Your task to perform on an android device: Open Chrome and go to settings Image 0: 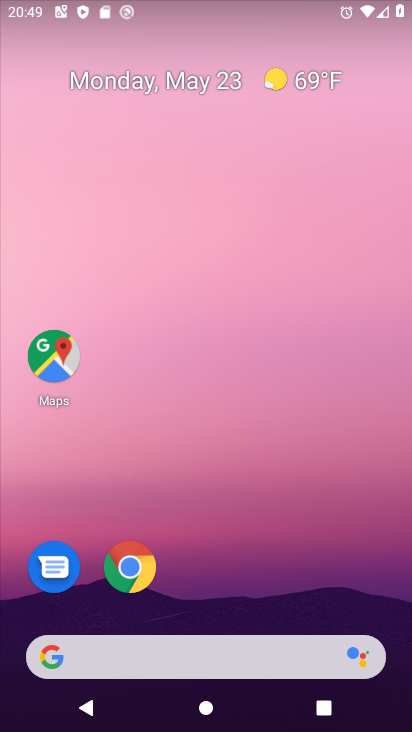
Step 0: click (134, 569)
Your task to perform on an android device: Open Chrome and go to settings Image 1: 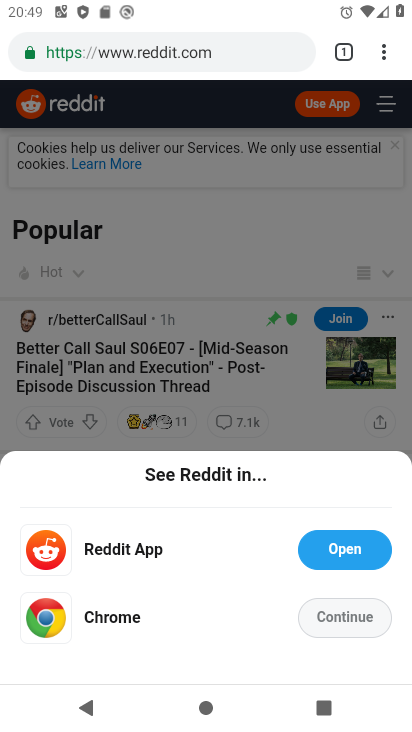
Step 1: click (382, 45)
Your task to perform on an android device: Open Chrome and go to settings Image 2: 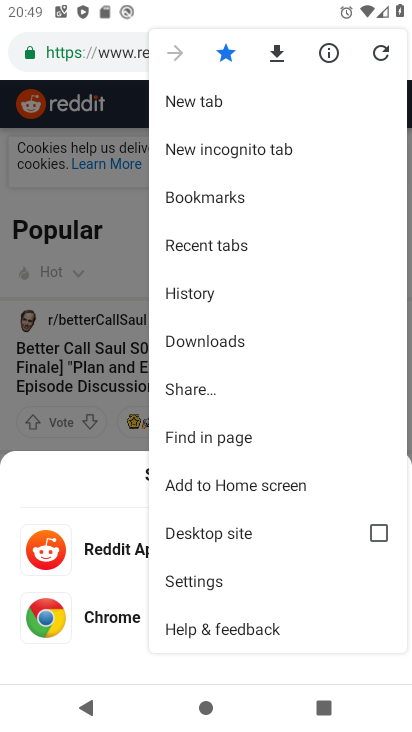
Step 2: click (226, 584)
Your task to perform on an android device: Open Chrome and go to settings Image 3: 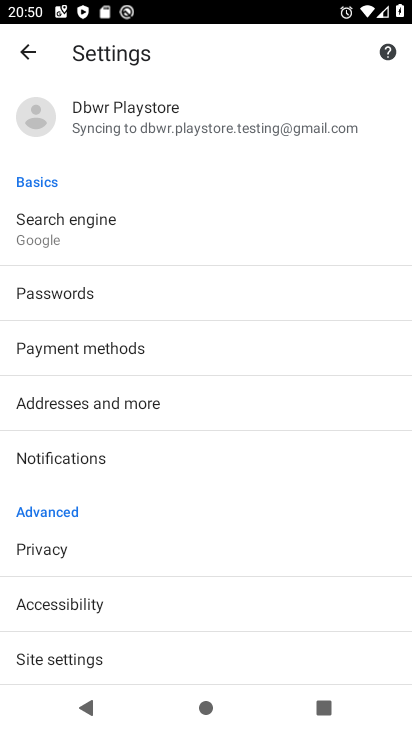
Step 3: task complete